Your task to perform on an android device: change timer sound Image 0: 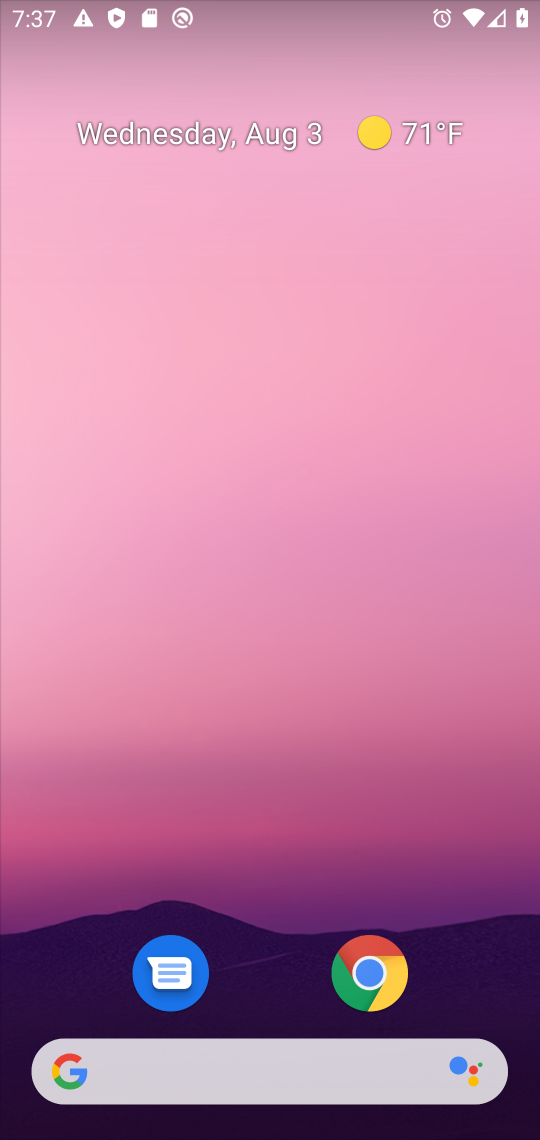
Step 0: drag from (264, 800) to (175, 125)
Your task to perform on an android device: change timer sound Image 1: 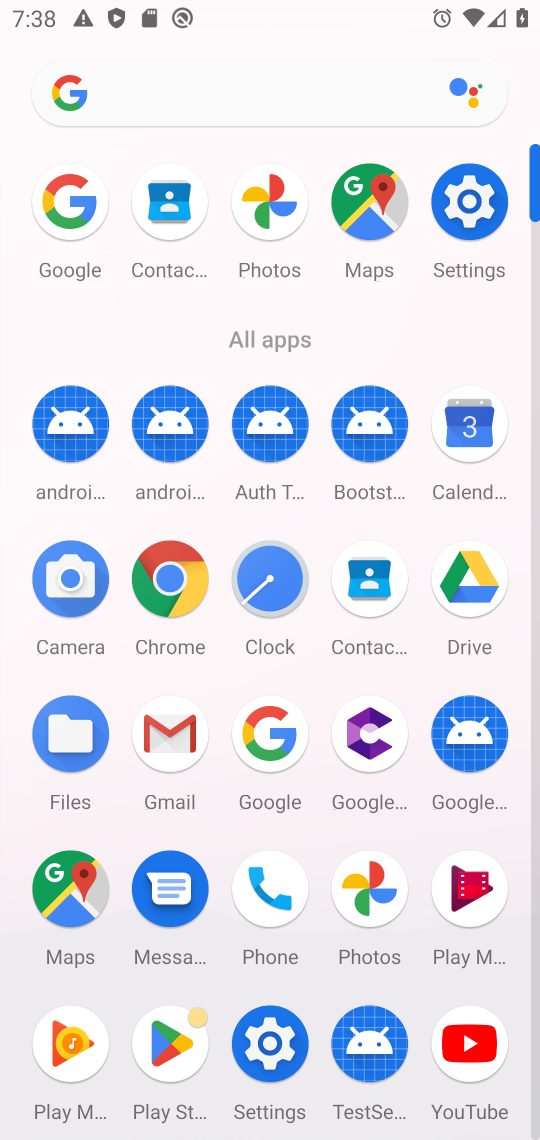
Step 1: click (264, 594)
Your task to perform on an android device: change timer sound Image 2: 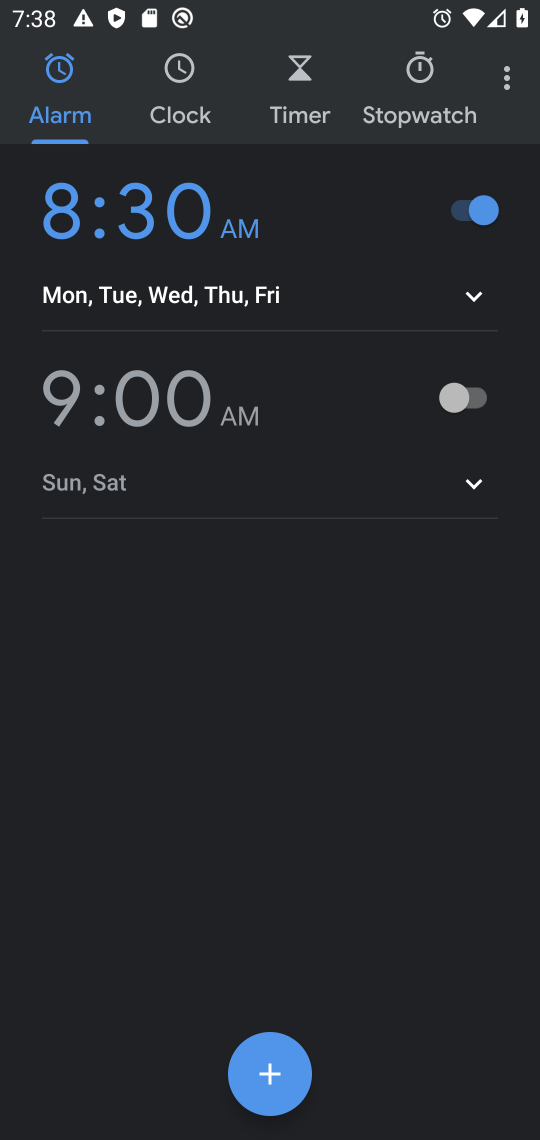
Step 2: click (510, 82)
Your task to perform on an android device: change timer sound Image 3: 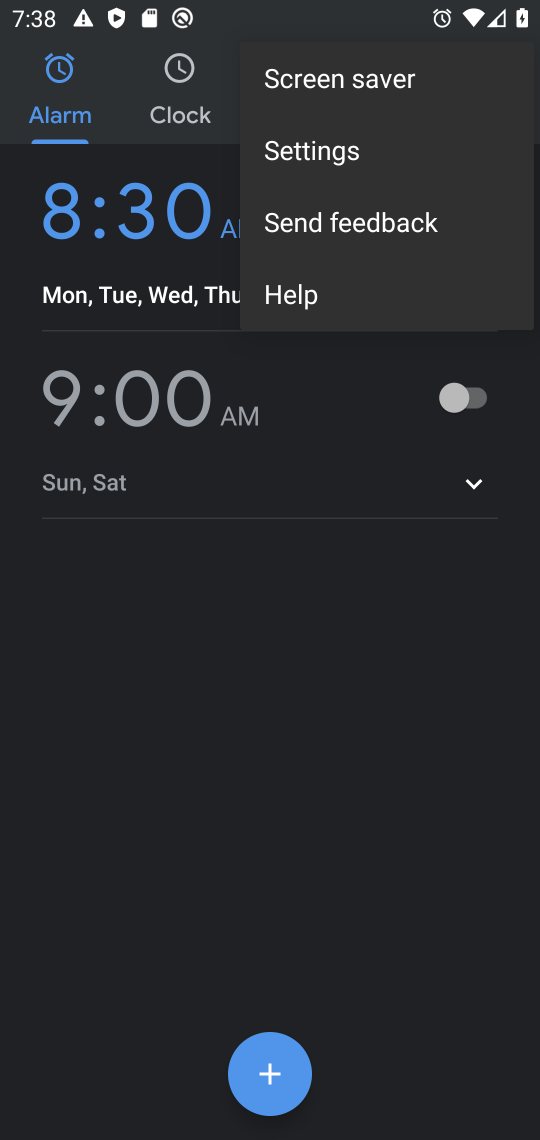
Step 3: click (350, 151)
Your task to perform on an android device: change timer sound Image 4: 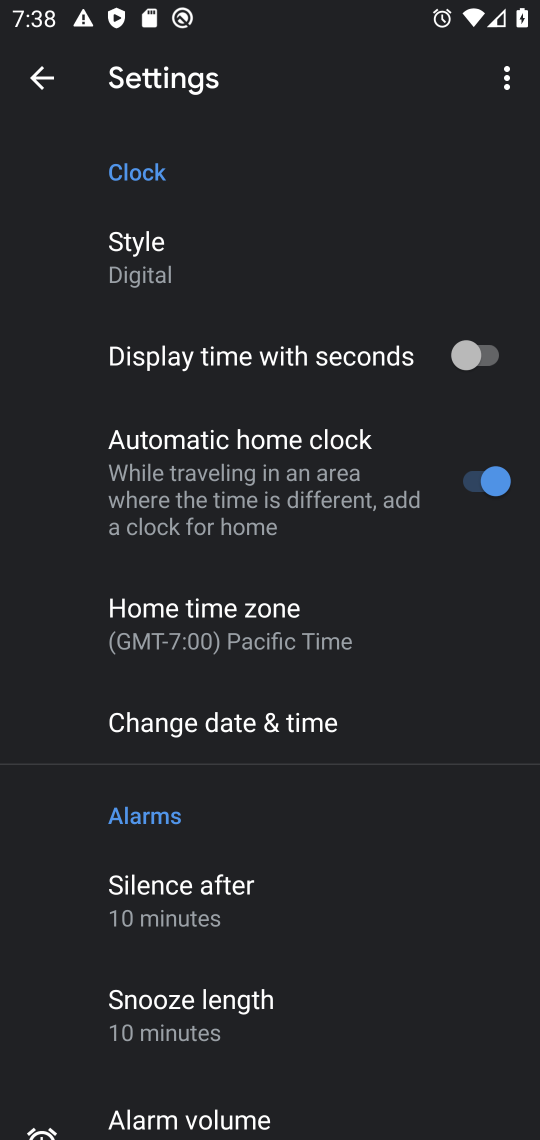
Step 4: drag from (249, 957) to (235, 352)
Your task to perform on an android device: change timer sound Image 5: 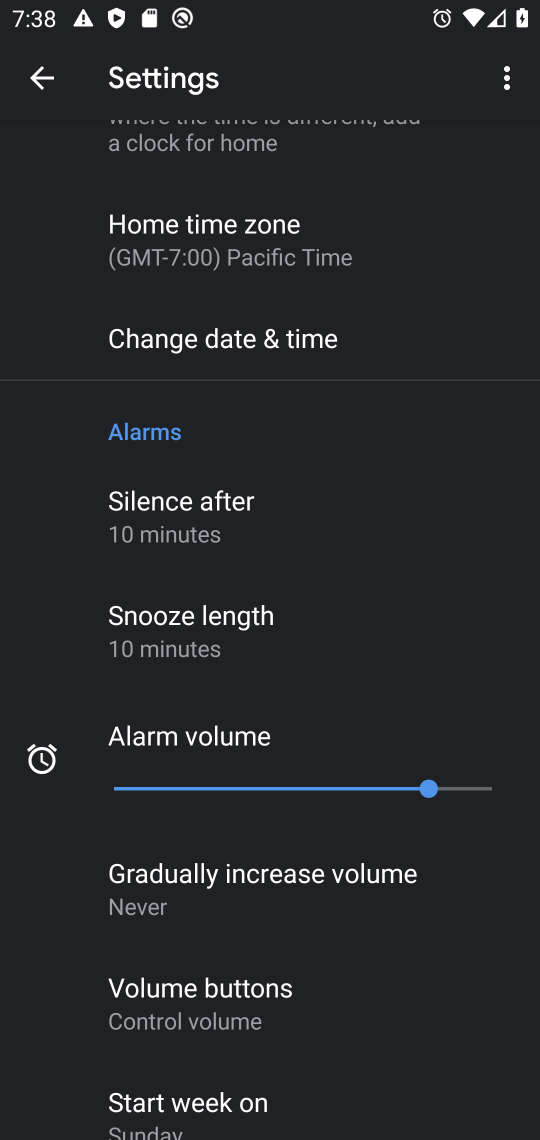
Step 5: drag from (265, 880) to (242, 389)
Your task to perform on an android device: change timer sound Image 6: 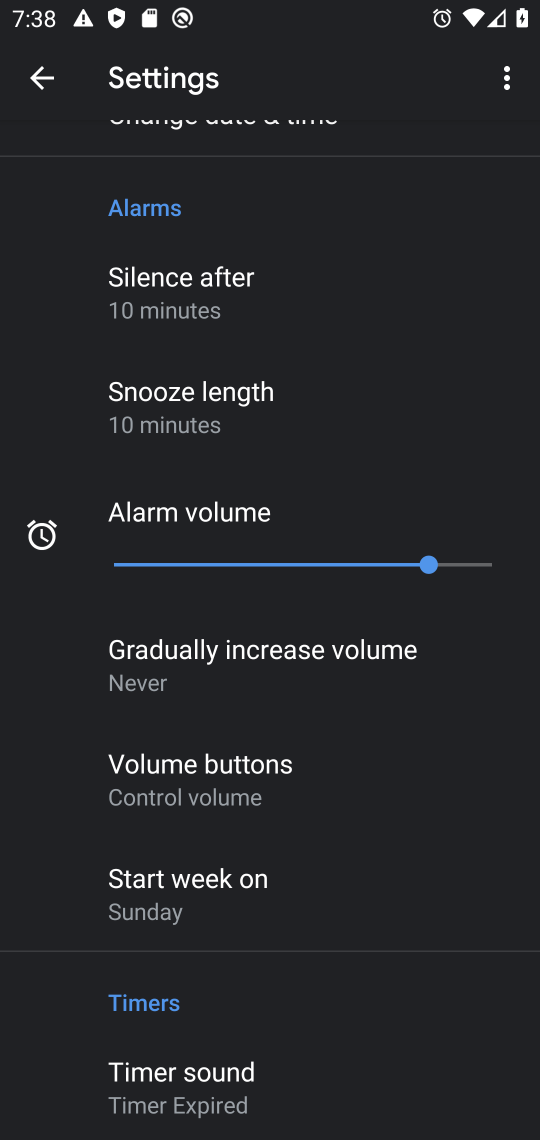
Step 6: click (199, 1073)
Your task to perform on an android device: change timer sound Image 7: 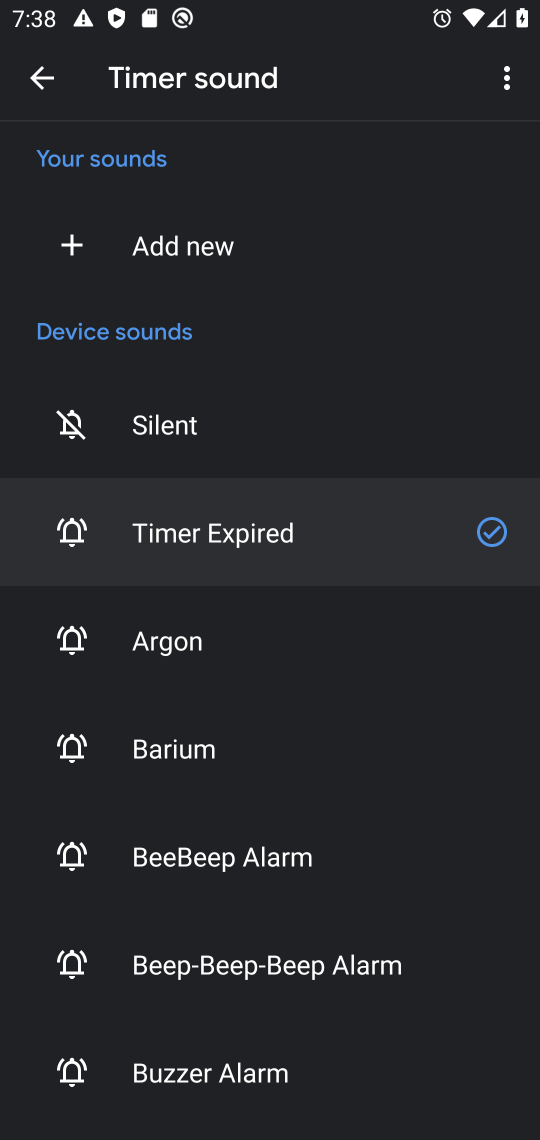
Step 7: click (195, 759)
Your task to perform on an android device: change timer sound Image 8: 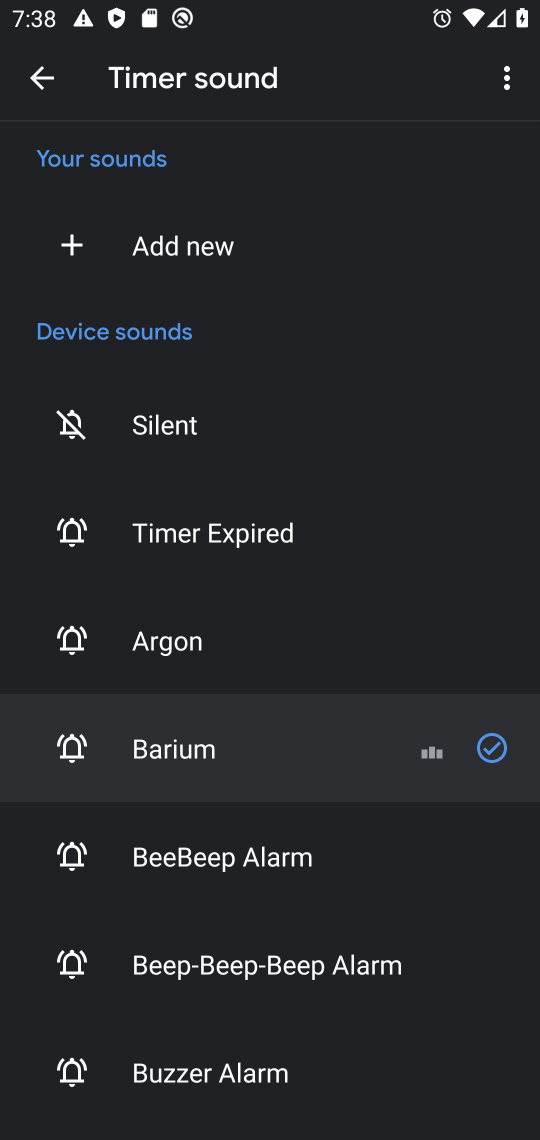
Step 8: task complete